Your task to perform on an android device: turn on showing notifications on the lock screen Image 0: 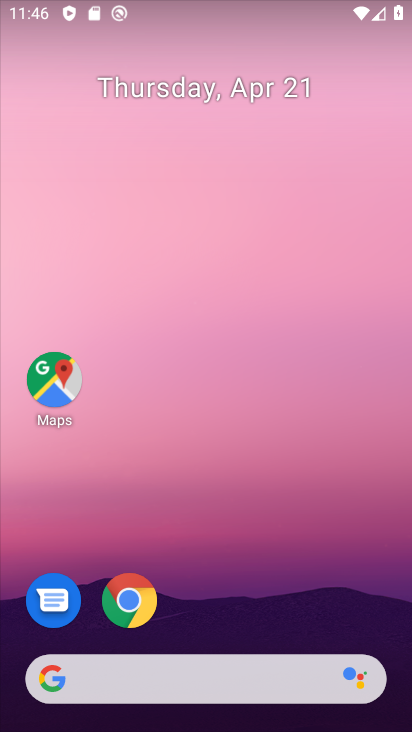
Step 0: drag from (372, 330) to (371, 182)
Your task to perform on an android device: turn on showing notifications on the lock screen Image 1: 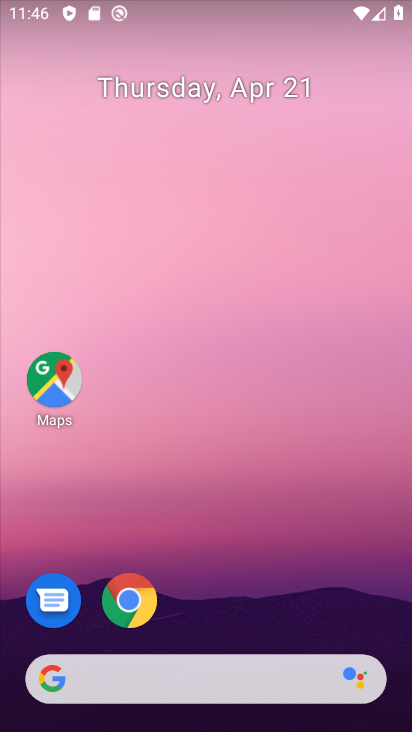
Step 1: drag from (385, 645) to (354, 148)
Your task to perform on an android device: turn on showing notifications on the lock screen Image 2: 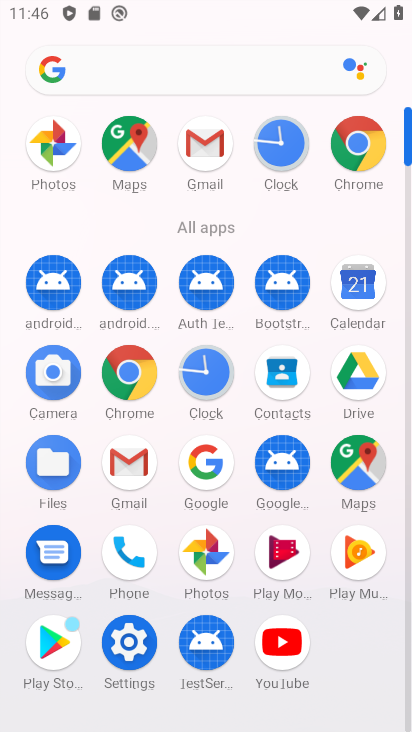
Step 2: click (131, 632)
Your task to perform on an android device: turn on showing notifications on the lock screen Image 3: 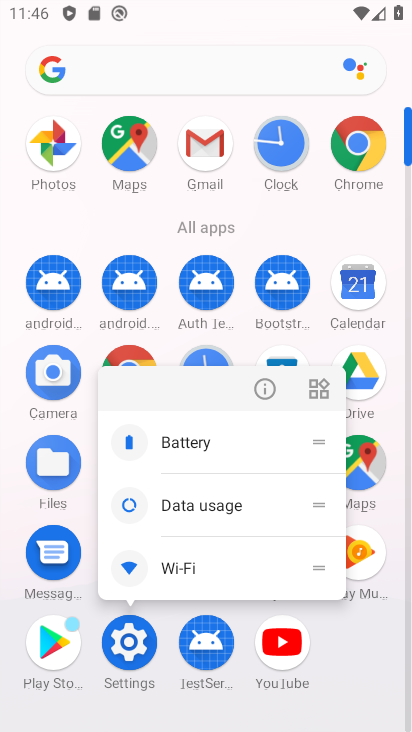
Step 3: click (131, 632)
Your task to perform on an android device: turn on showing notifications on the lock screen Image 4: 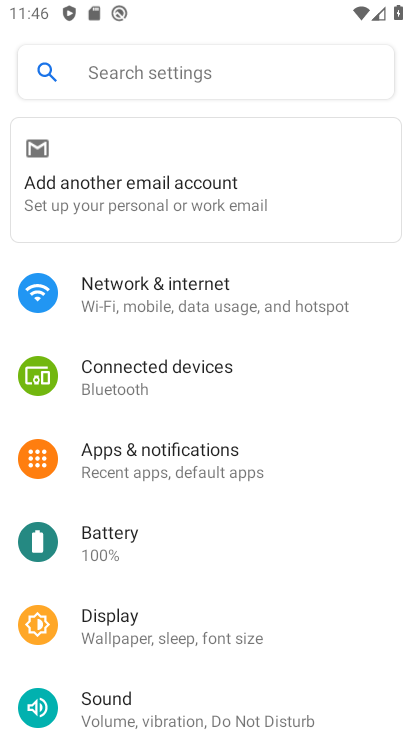
Step 4: click (152, 464)
Your task to perform on an android device: turn on showing notifications on the lock screen Image 5: 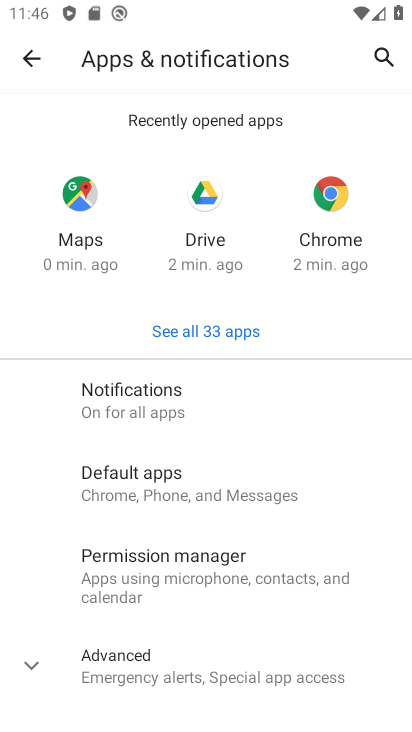
Step 5: drag from (369, 642) to (366, 337)
Your task to perform on an android device: turn on showing notifications on the lock screen Image 6: 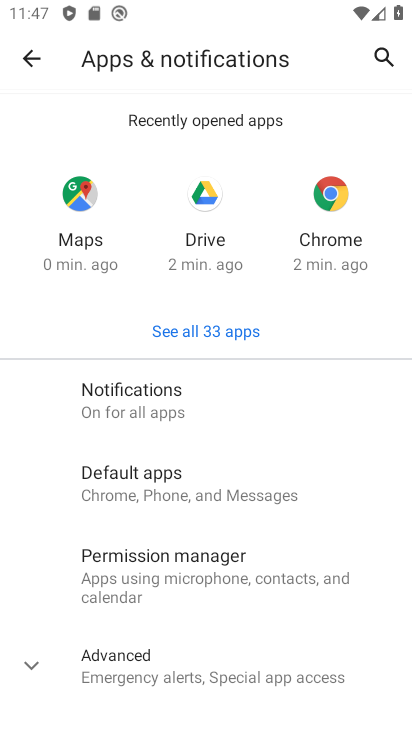
Step 6: click (123, 405)
Your task to perform on an android device: turn on showing notifications on the lock screen Image 7: 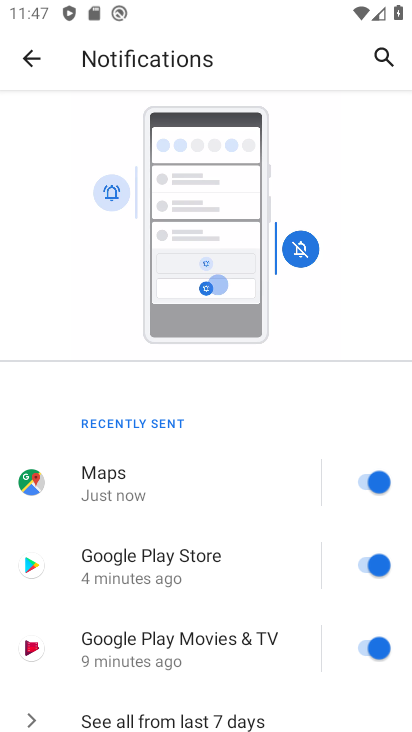
Step 7: drag from (313, 708) to (320, 389)
Your task to perform on an android device: turn on showing notifications on the lock screen Image 8: 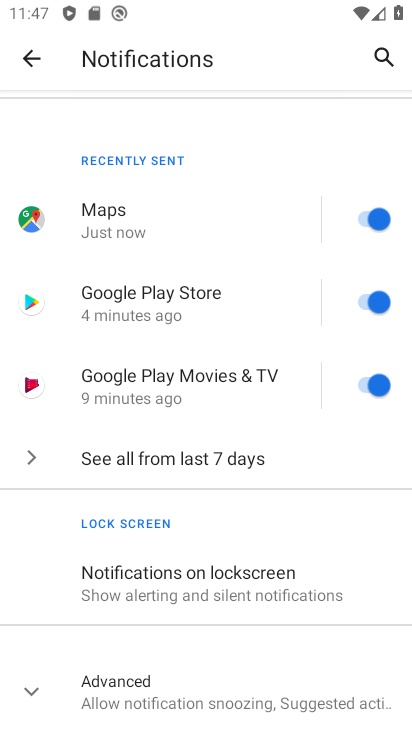
Step 8: click (162, 584)
Your task to perform on an android device: turn on showing notifications on the lock screen Image 9: 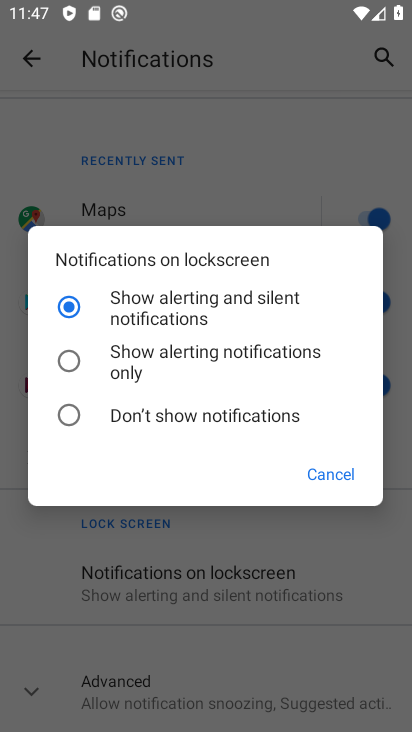
Step 9: task complete